Your task to perform on an android device: Check the weather Image 0: 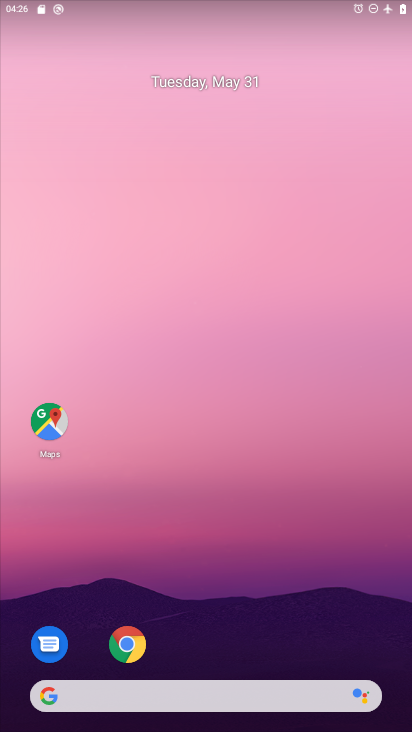
Step 0: drag from (281, 579) to (294, 57)
Your task to perform on an android device: Check the weather Image 1: 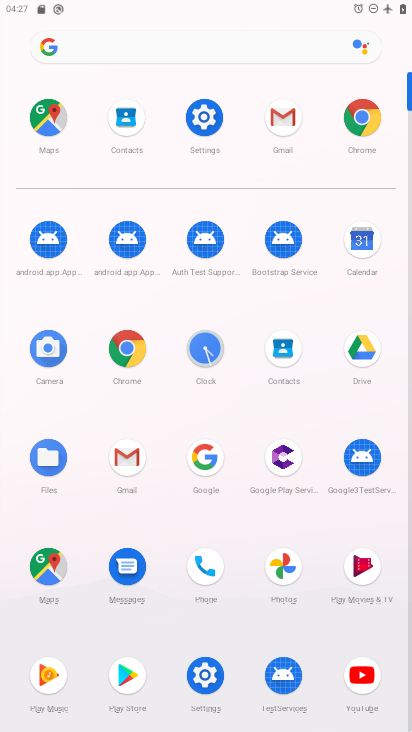
Step 1: click (365, 112)
Your task to perform on an android device: Check the weather Image 2: 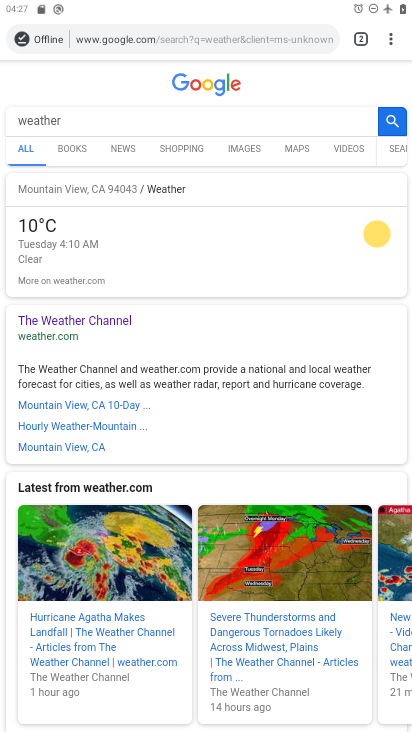
Step 2: task complete